Your task to perform on an android device: check android version Image 0: 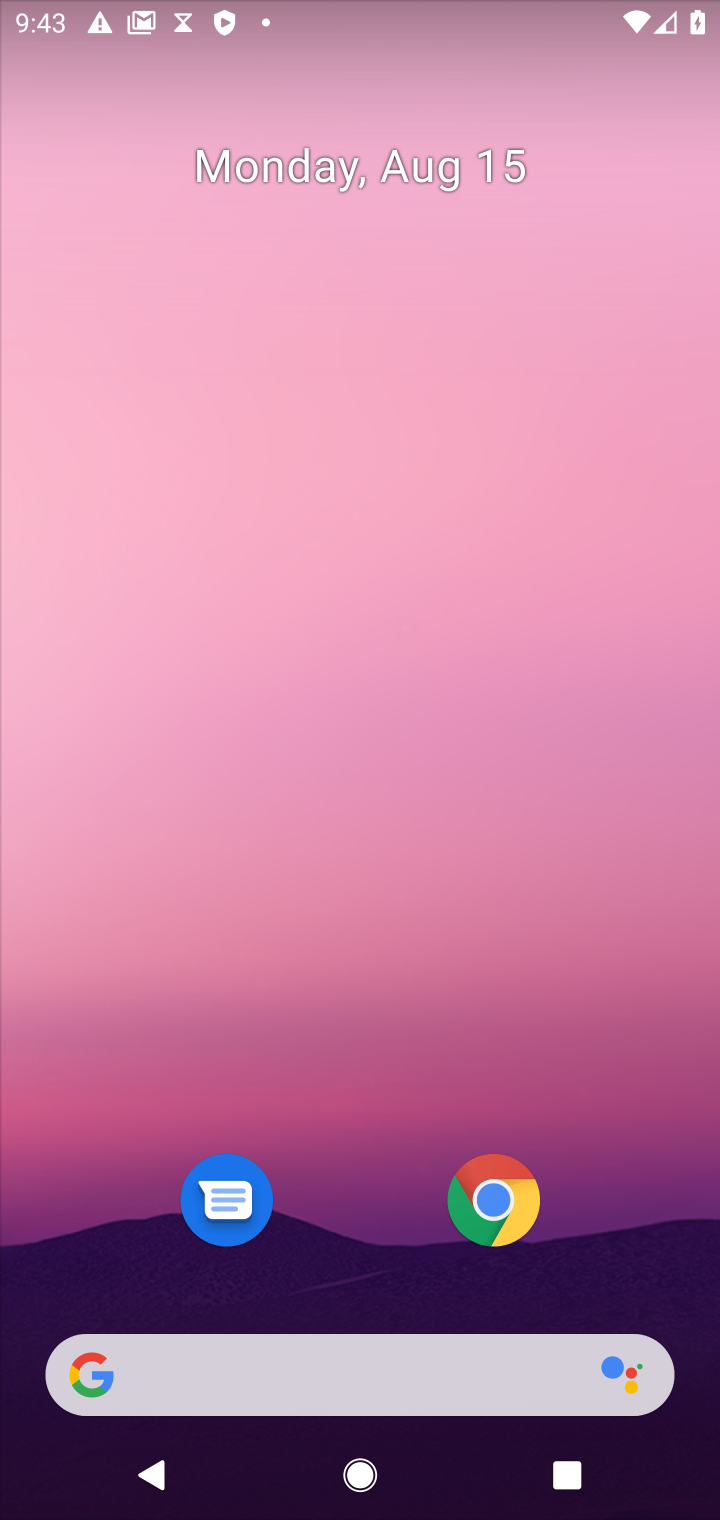
Step 0: drag from (362, 1230) to (384, 526)
Your task to perform on an android device: check android version Image 1: 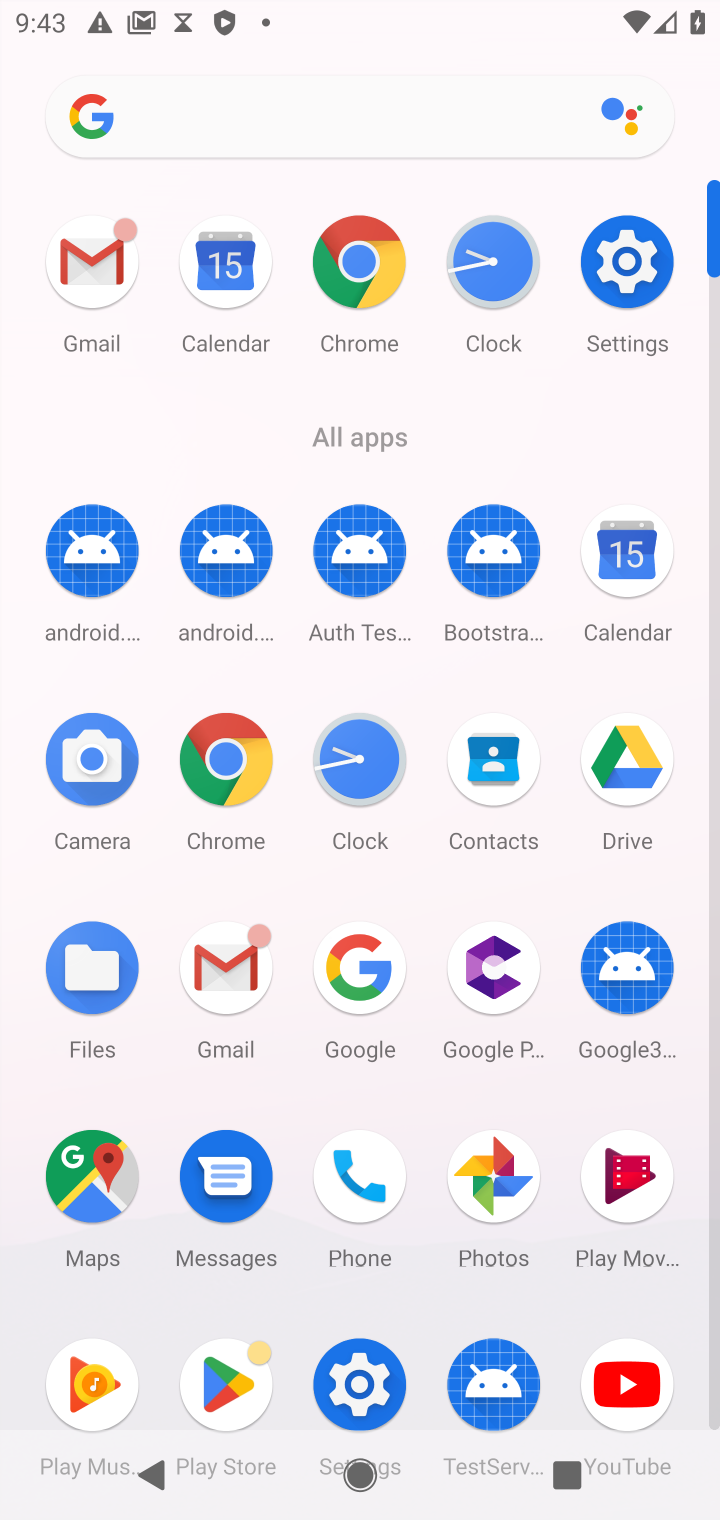
Step 1: click (617, 284)
Your task to perform on an android device: check android version Image 2: 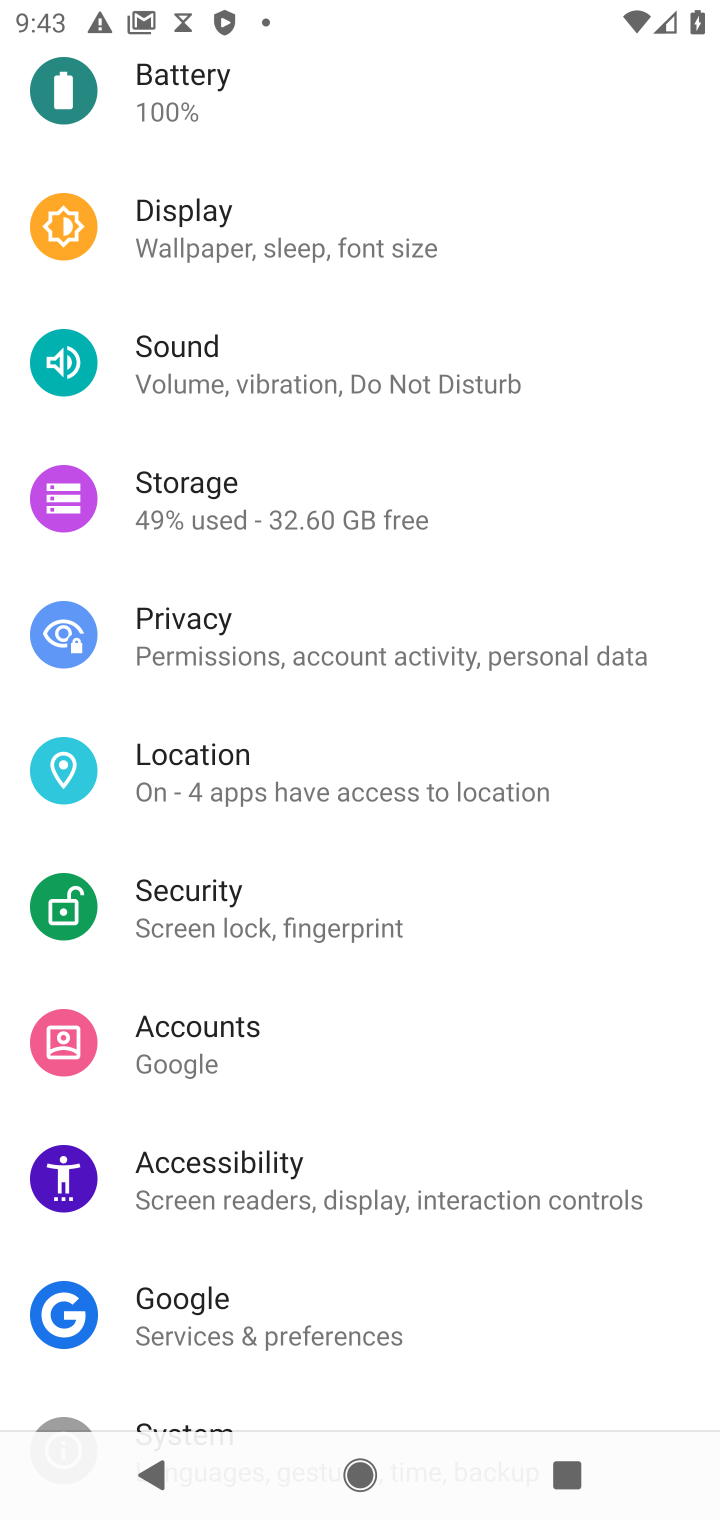
Step 2: drag from (372, 1287) to (340, 288)
Your task to perform on an android device: check android version Image 3: 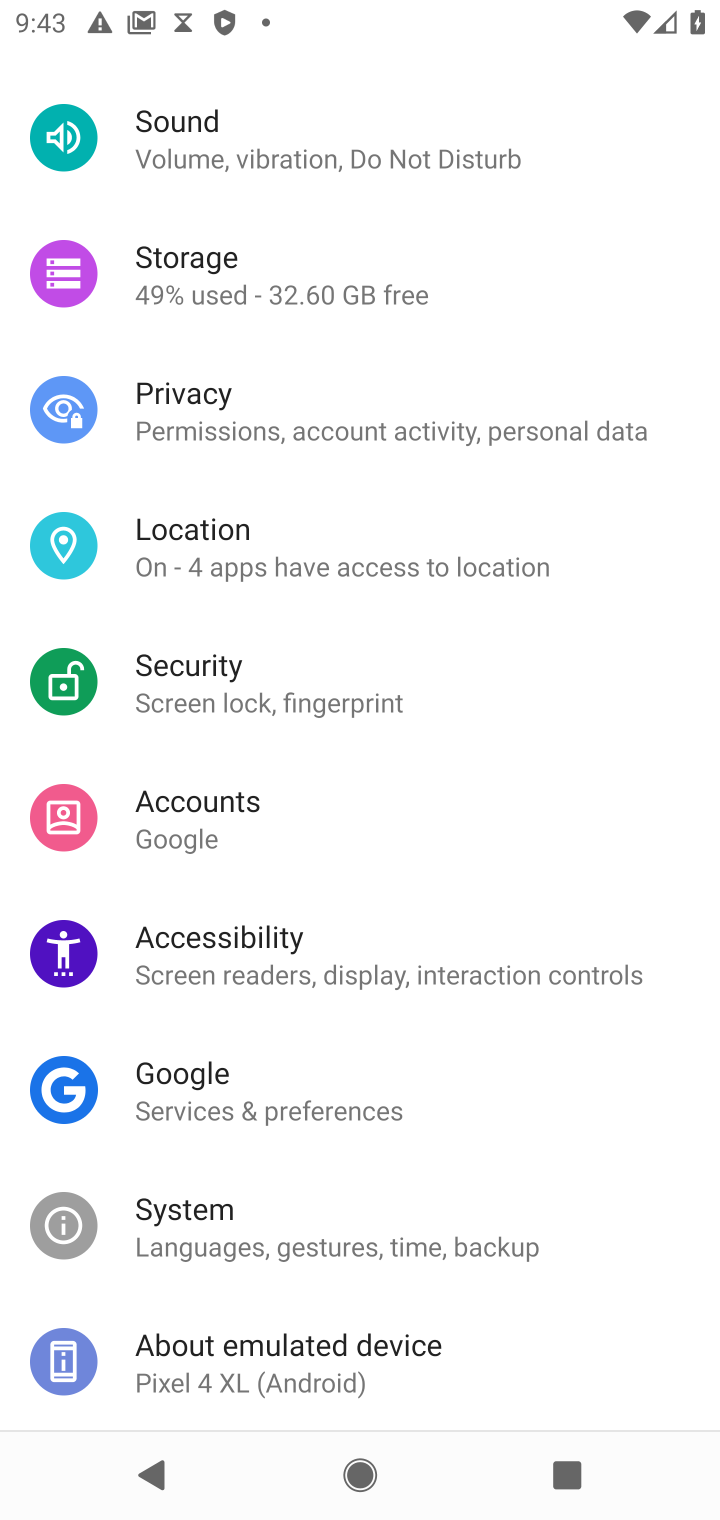
Step 3: drag from (366, 1242) to (322, 340)
Your task to perform on an android device: check android version Image 4: 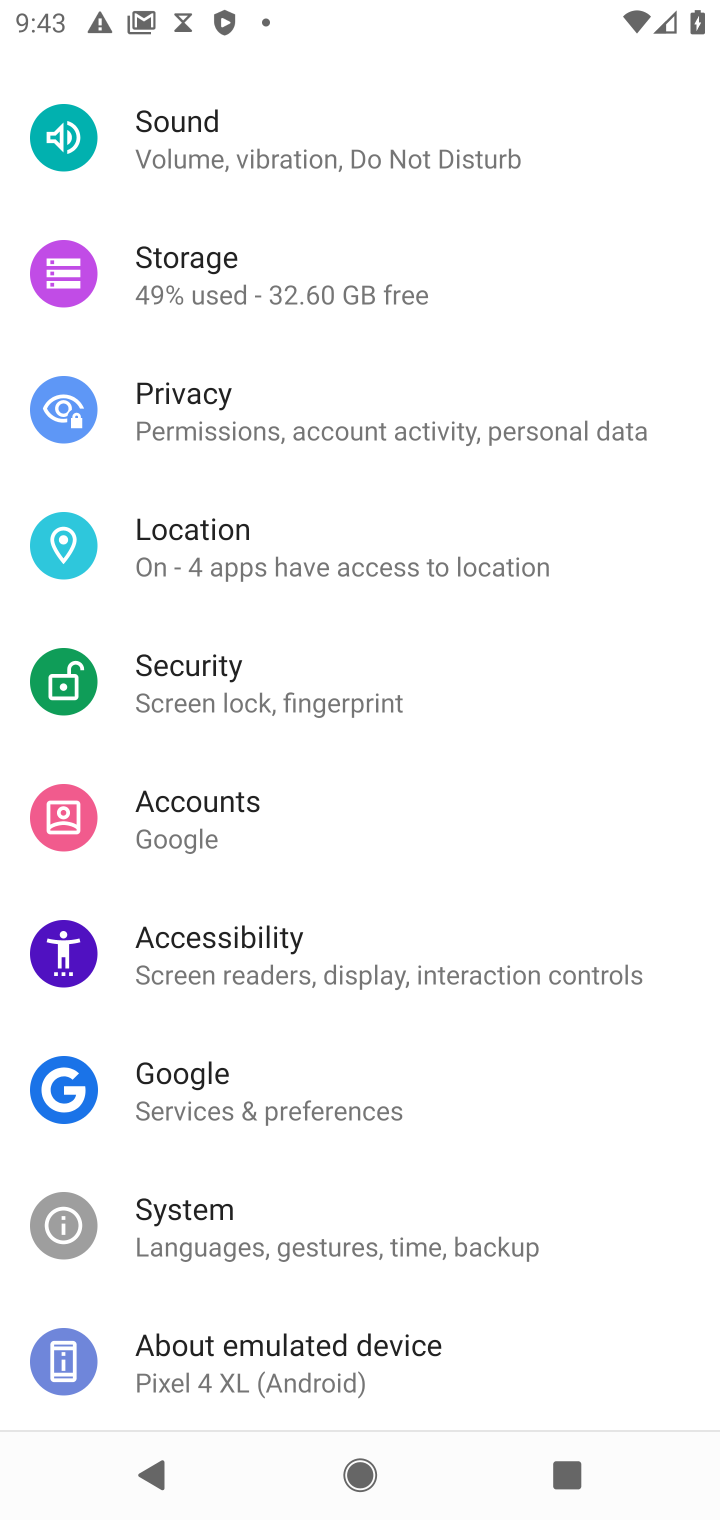
Step 4: click (228, 1361)
Your task to perform on an android device: check android version Image 5: 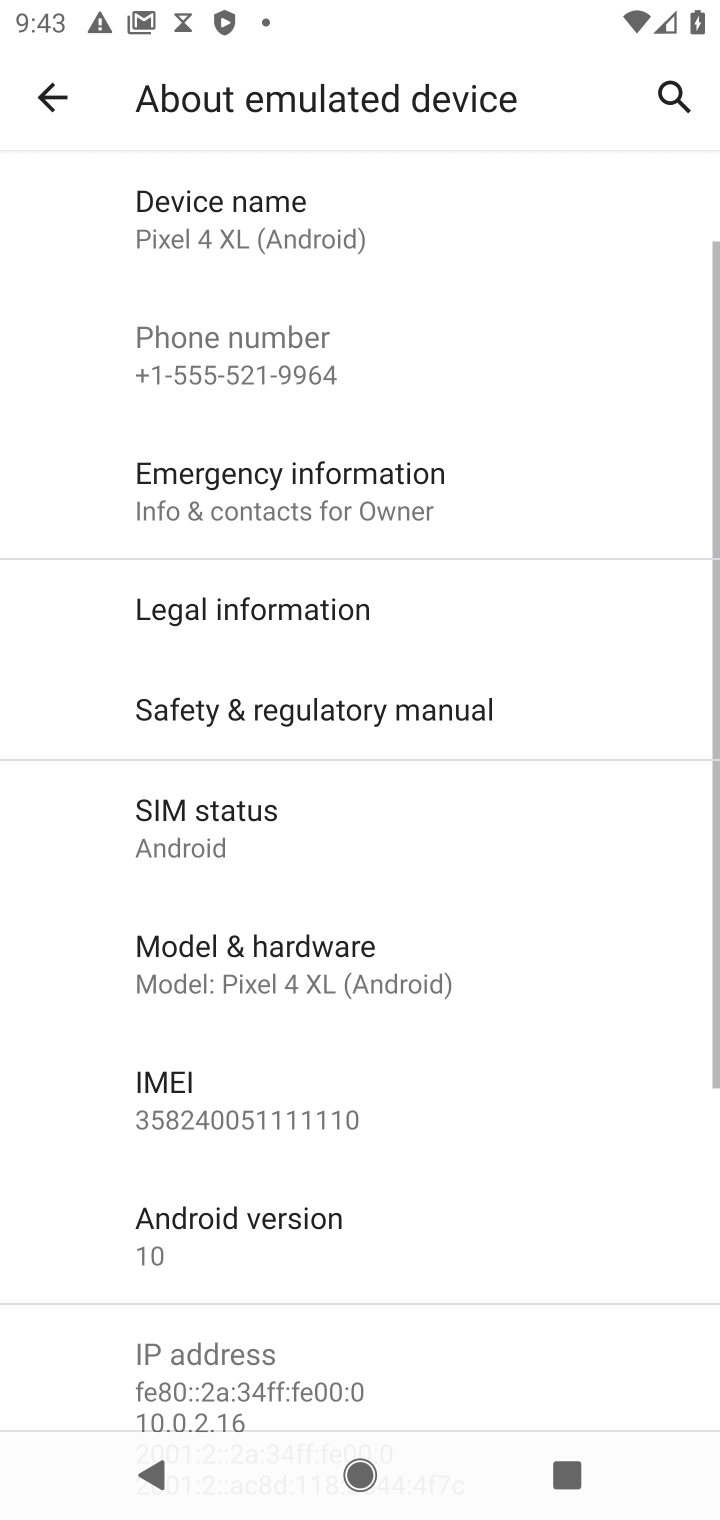
Step 5: click (325, 1233)
Your task to perform on an android device: check android version Image 6: 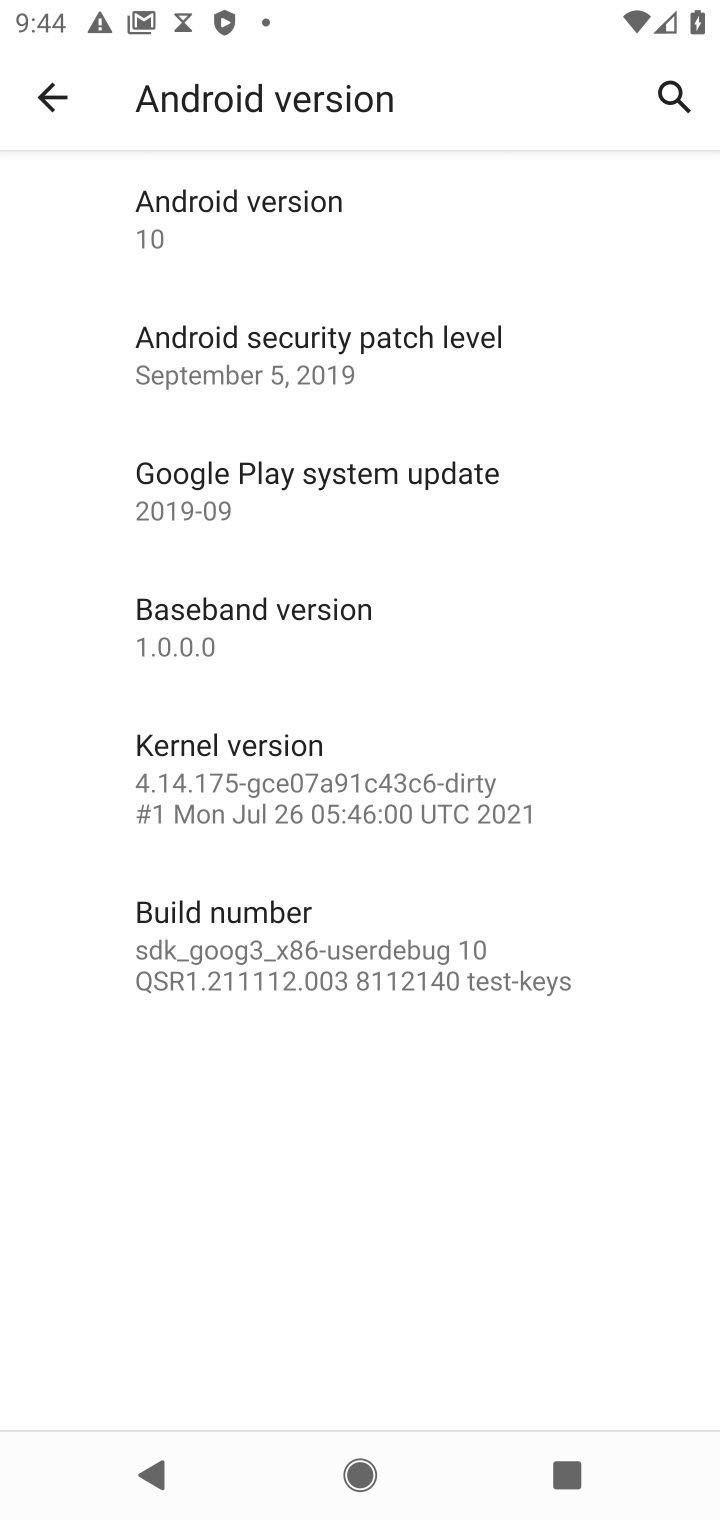
Step 6: click (363, 260)
Your task to perform on an android device: check android version Image 7: 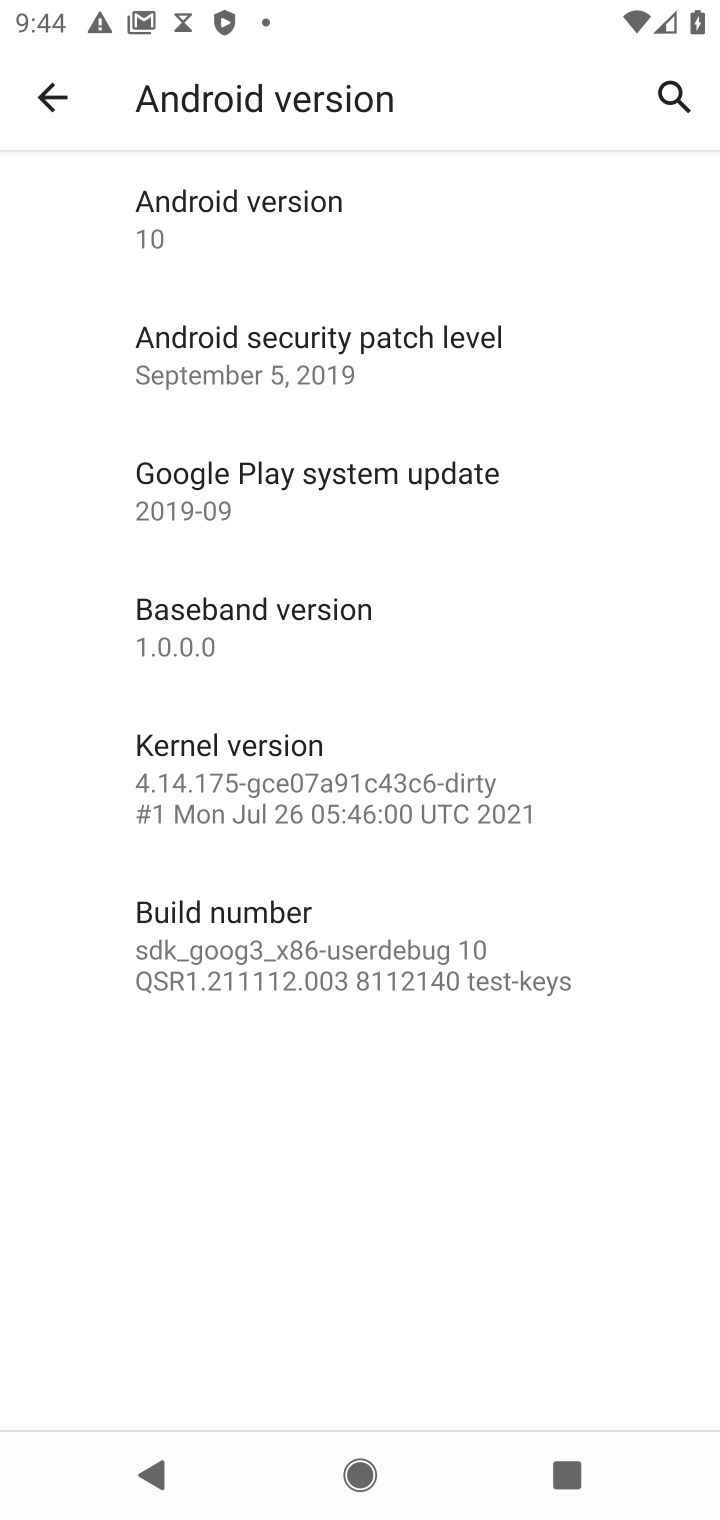
Step 7: task complete